Your task to perform on an android device: uninstall "Google Sheets" Image 0: 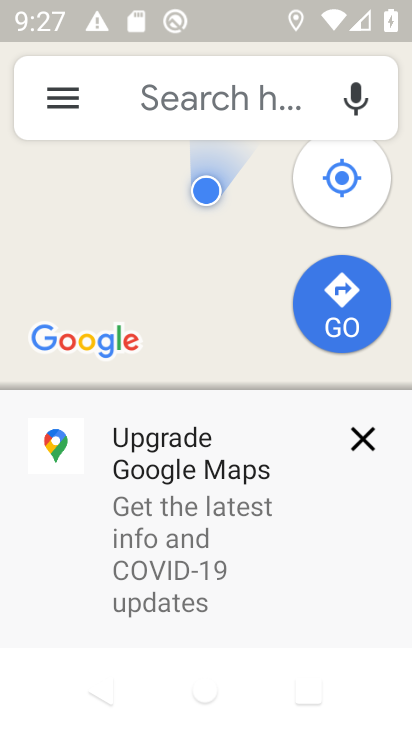
Step 0: press home button
Your task to perform on an android device: uninstall "Google Sheets" Image 1: 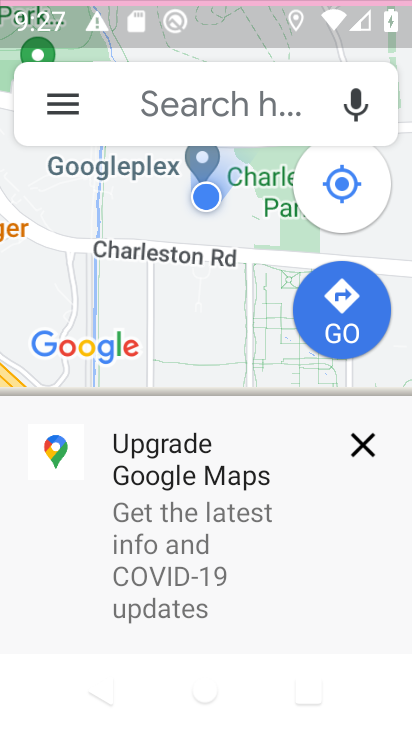
Step 1: drag from (388, 627) to (167, 11)
Your task to perform on an android device: uninstall "Google Sheets" Image 2: 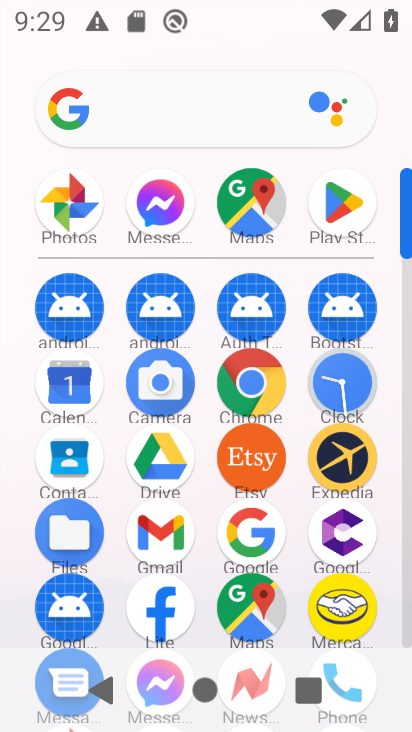
Step 2: click (360, 205)
Your task to perform on an android device: uninstall "Google Sheets" Image 3: 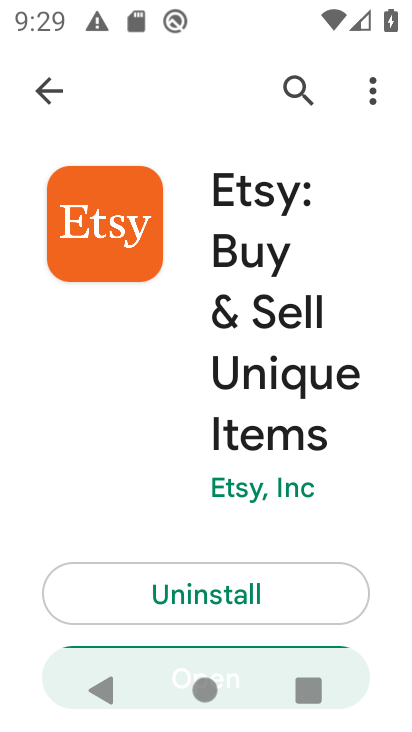
Step 3: press back button
Your task to perform on an android device: uninstall "Google Sheets" Image 4: 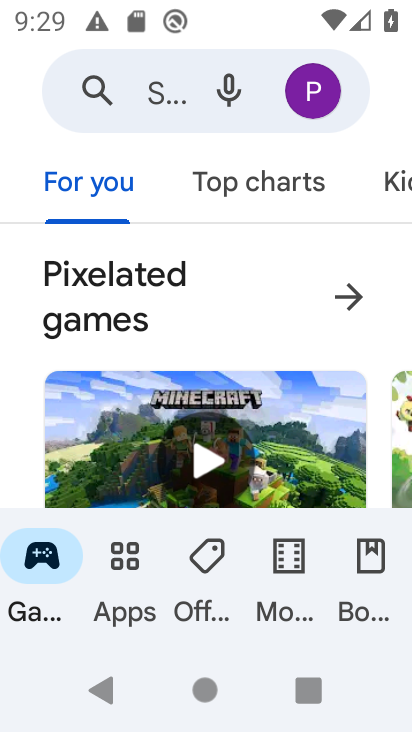
Step 4: click (158, 95)
Your task to perform on an android device: uninstall "Google Sheets" Image 5: 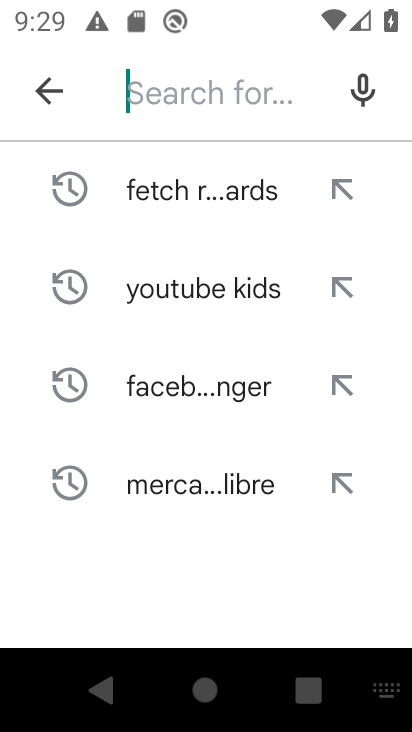
Step 5: type "Google Sheets"
Your task to perform on an android device: uninstall "Google Sheets" Image 6: 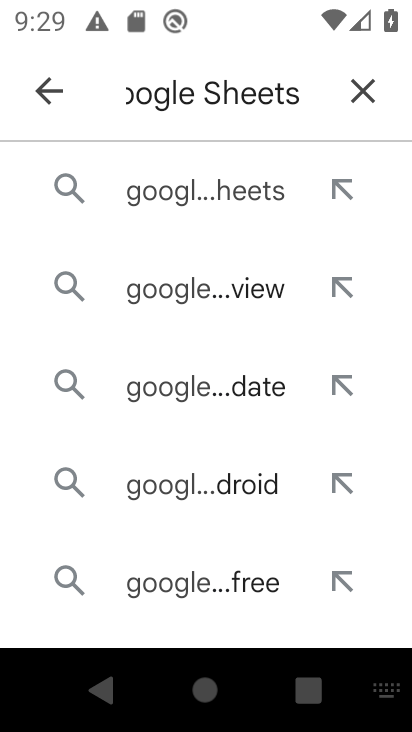
Step 6: click (186, 198)
Your task to perform on an android device: uninstall "Google Sheets" Image 7: 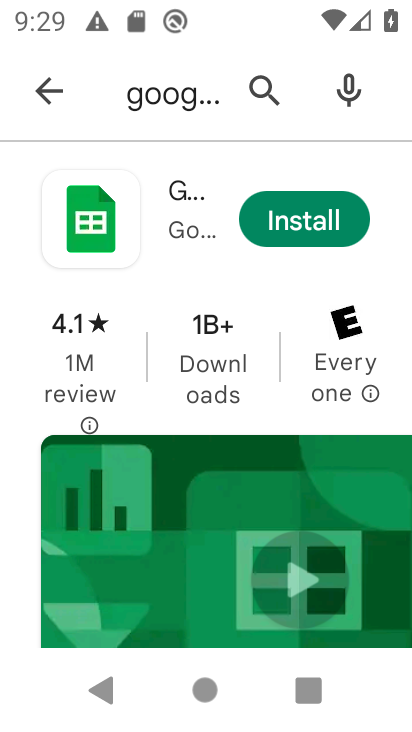
Step 7: task complete